Your task to perform on an android device: Open settings on Google Maps Image 0: 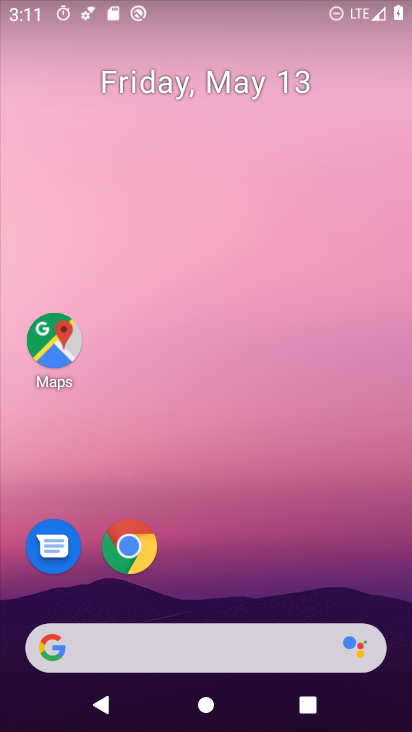
Step 0: drag from (147, 612) to (229, 166)
Your task to perform on an android device: Open settings on Google Maps Image 1: 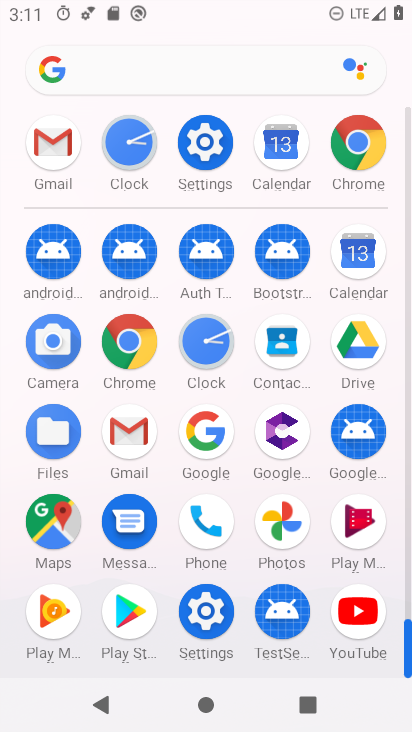
Step 1: click (25, 538)
Your task to perform on an android device: Open settings on Google Maps Image 2: 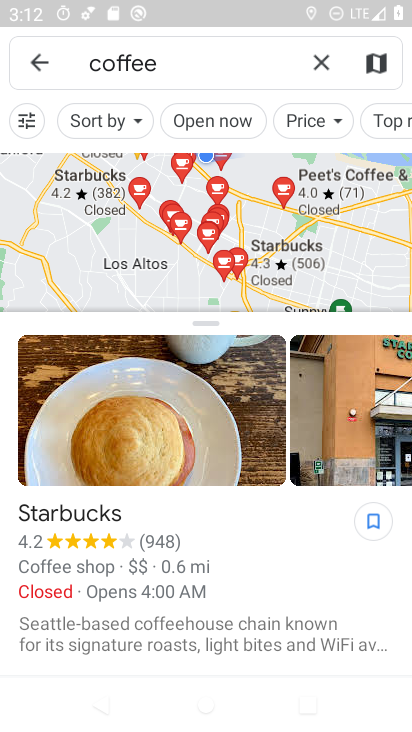
Step 2: click (40, 74)
Your task to perform on an android device: Open settings on Google Maps Image 3: 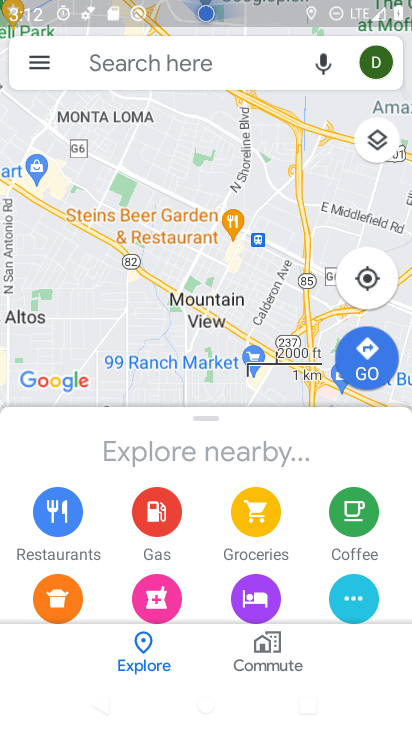
Step 3: click (39, 72)
Your task to perform on an android device: Open settings on Google Maps Image 4: 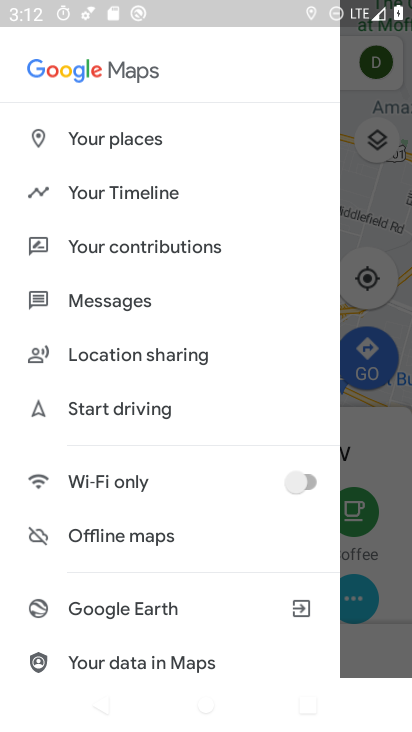
Step 4: drag from (186, 591) to (201, 261)
Your task to perform on an android device: Open settings on Google Maps Image 5: 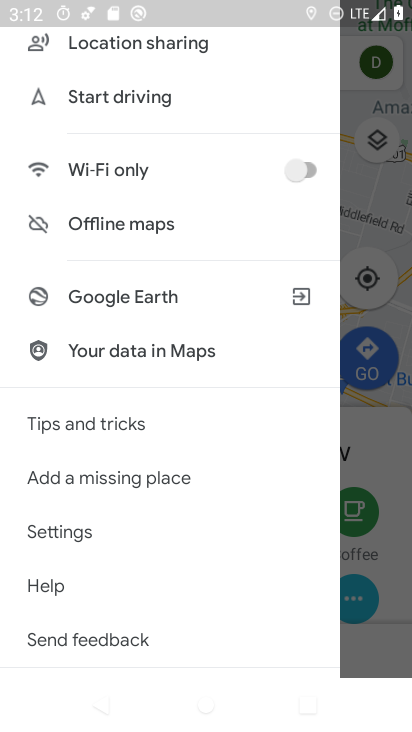
Step 5: drag from (123, 514) to (156, 253)
Your task to perform on an android device: Open settings on Google Maps Image 6: 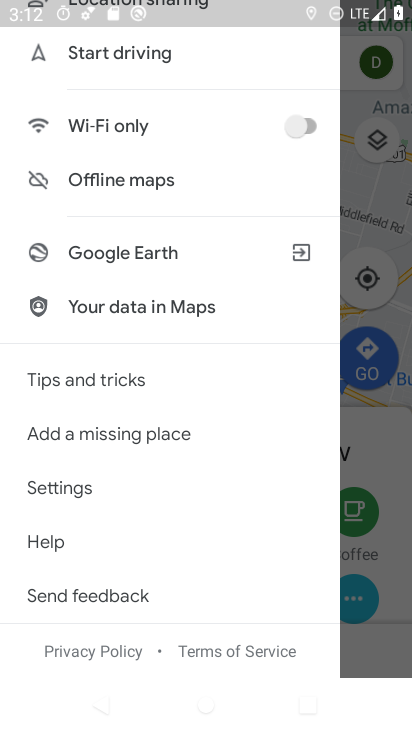
Step 6: click (102, 481)
Your task to perform on an android device: Open settings on Google Maps Image 7: 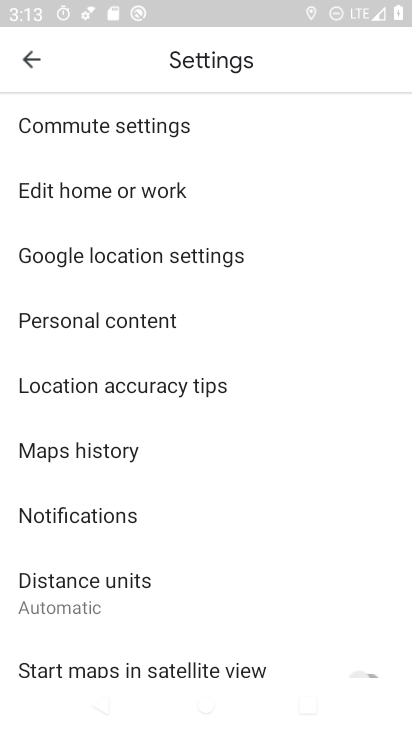
Step 7: task complete